Your task to perform on an android device: Go to battery settings Image 0: 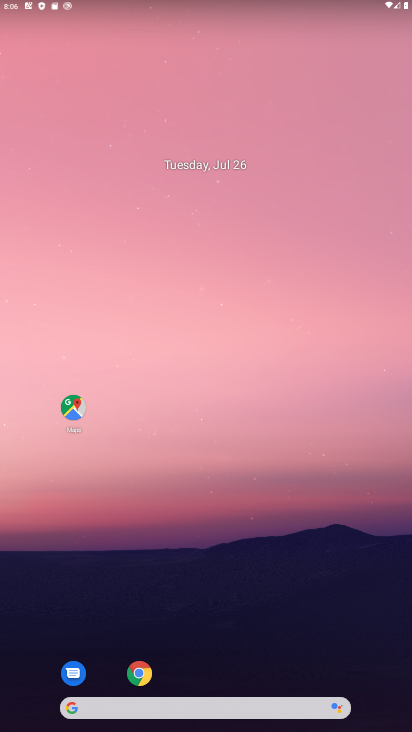
Step 0: drag from (388, 654) to (224, 189)
Your task to perform on an android device: Go to battery settings Image 1: 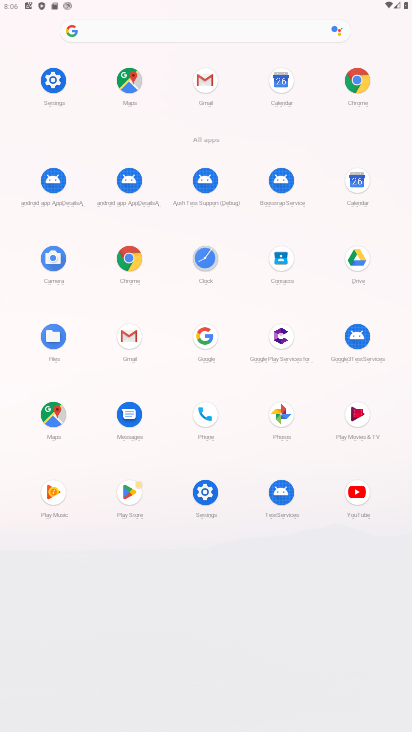
Step 1: click (210, 496)
Your task to perform on an android device: Go to battery settings Image 2: 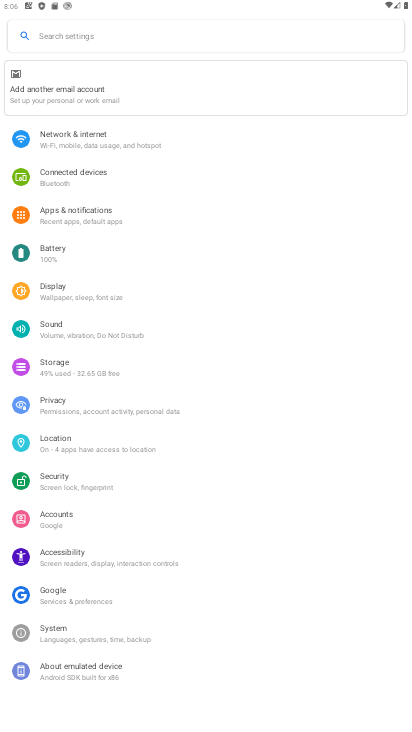
Step 2: click (30, 263)
Your task to perform on an android device: Go to battery settings Image 3: 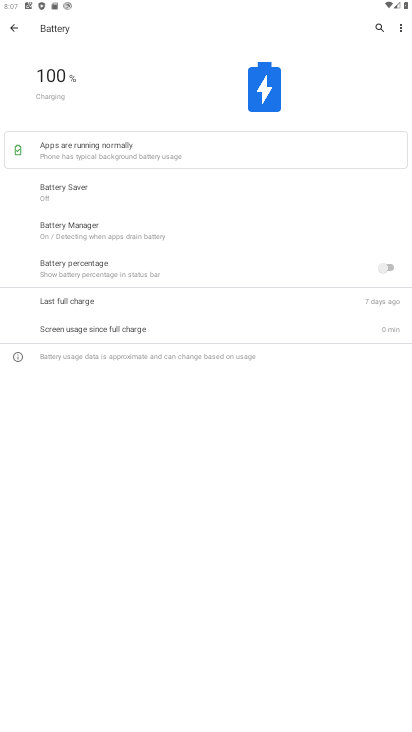
Step 3: task complete